Your task to perform on an android device: turn off smart reply in the gmail app Image 0: 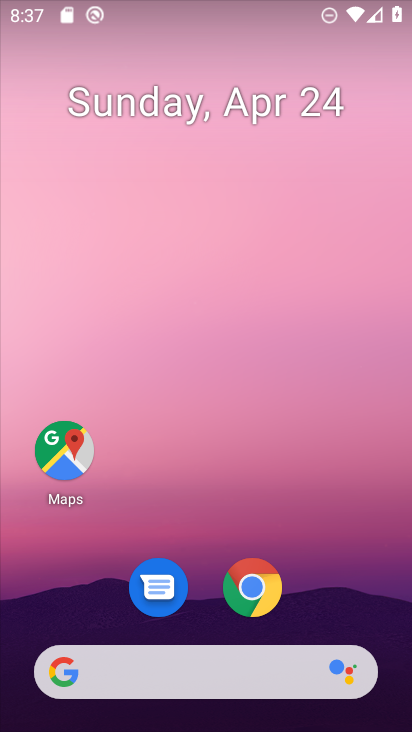
Step 0: drag from (340, 538) to (337, 97)
Your task to perform on an android device: turn off smart reply in the gmail app Image 1: 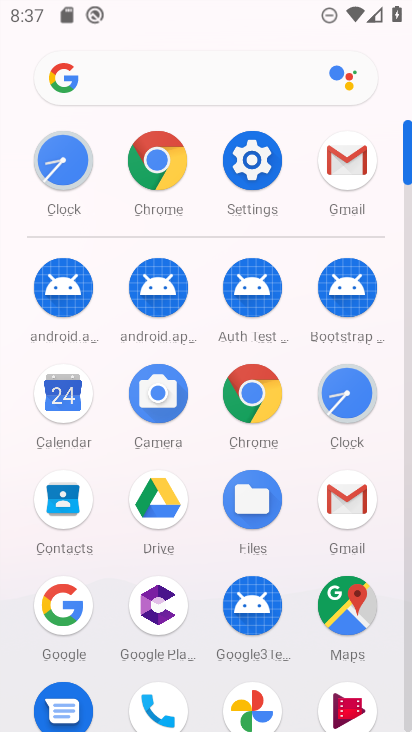
Step 1: click (360, 492)
Your task to perform on an android device: turn off smart reply in the gmail app Image 2: 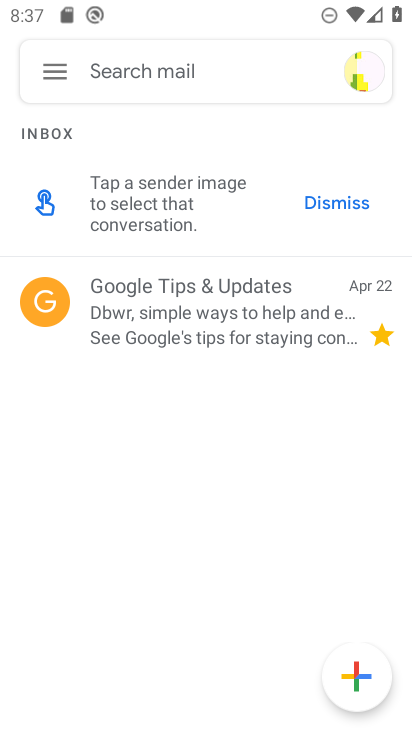
Step 2: click (63, 71)
Your task to perform on an android device: turn off smart reply in the gmail app Image 3: 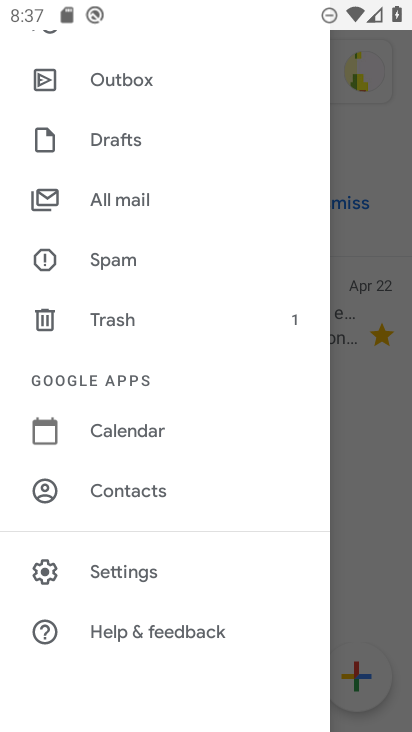
Step 3: click (161, 566)
Your task to perform on an android device: turn off smart reply in the gmail app Image 4: 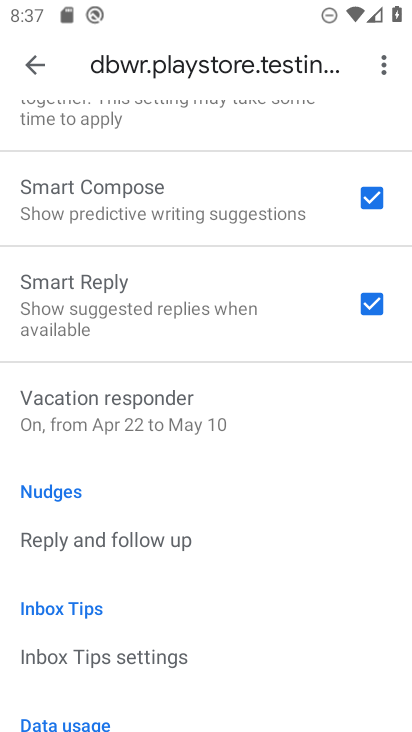
Step 4: click (376, 300)
Your task to perform on an android device: turn off smart reply in the gmail app Image 5: 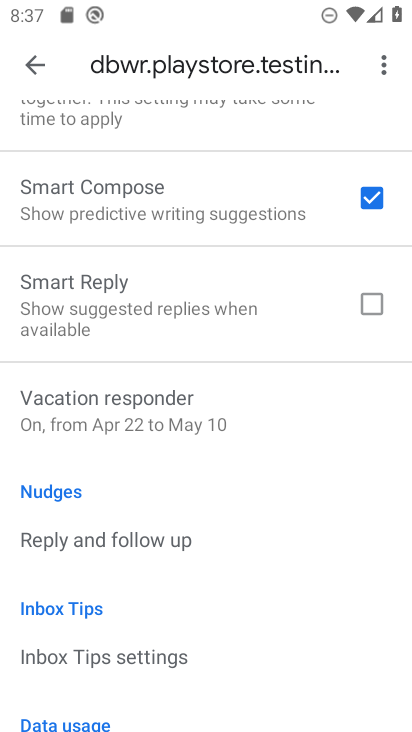
Step 5: task complete